Your task to perform on an android device: Show me the alarms in the clock app Image 0: 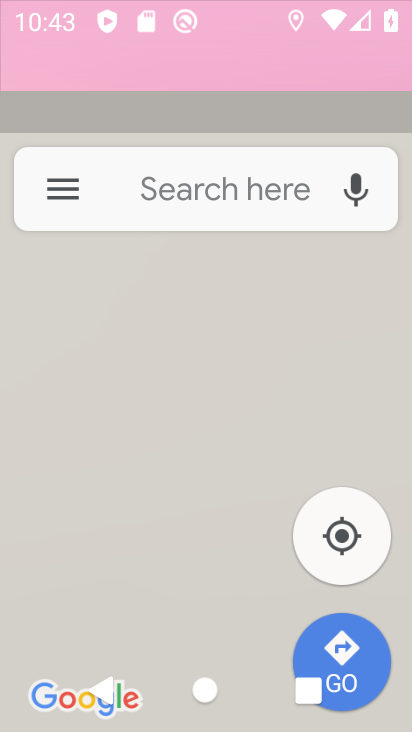
Step 0: drag from (387, 9) to (254, 59)
Your task to perform on an android device: Show me the alarms in the clock app Image 1: 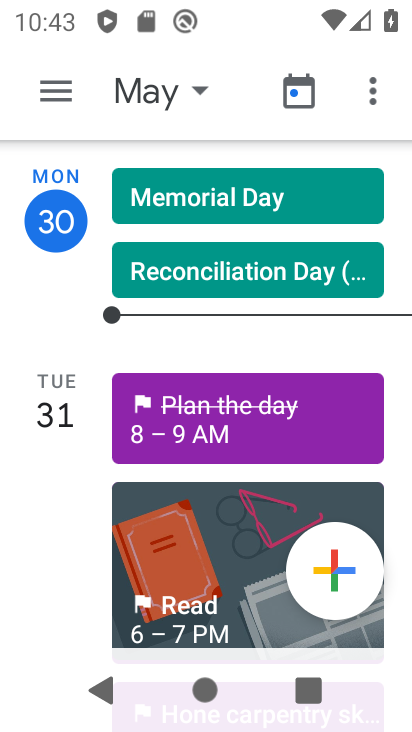
Step 1: press home button
Your task to perform on an android device: Show me the alarms in the clock app Image 2: 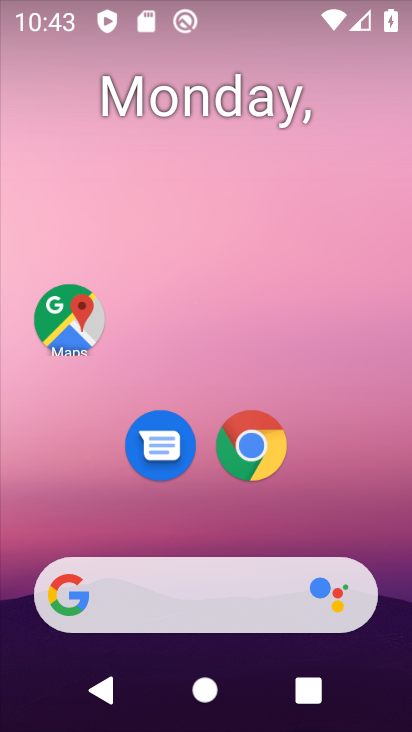
Step 2: drag from (176, 520) to (278, 50)
Your task to perform on an android device: Show me the alarms in the clock app Image 3: 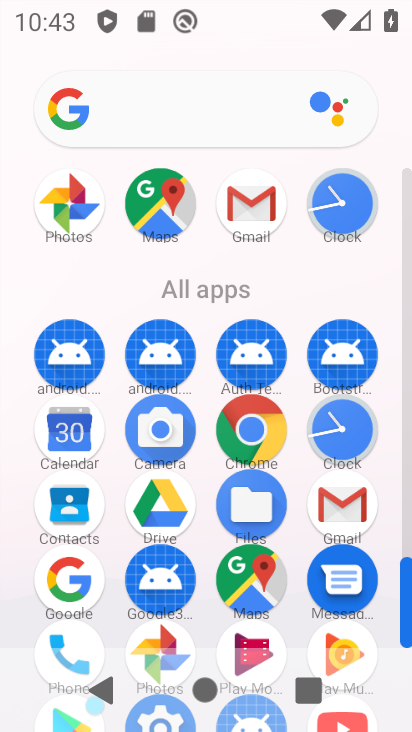
Step 3: click (339, 432)
Your task to perform on an android device: Show me the alarms in the clock app Image 4: 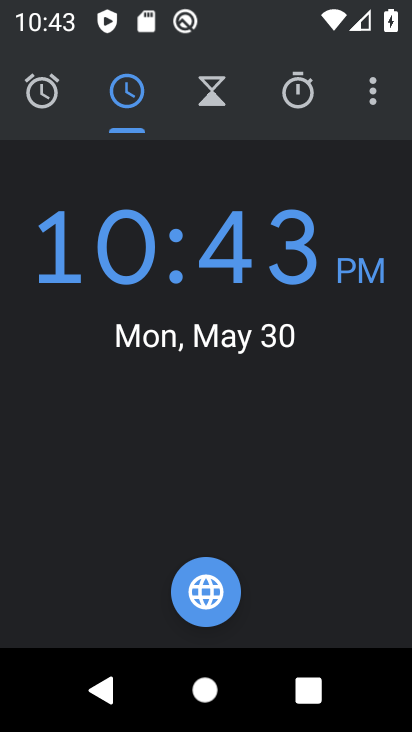
Step 4: click (54, 76)
Your task to perform on an android device: Show me the alarms in the clock app Image 5: 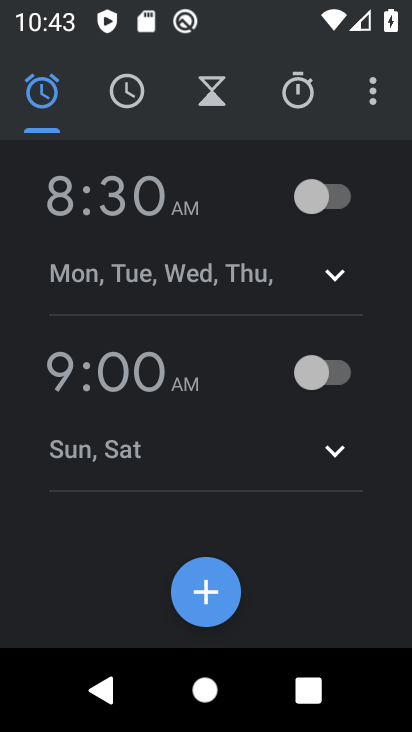
Step 5: task complete